Your task to perform on an android device: change notification settings in the gmail app Image 0: 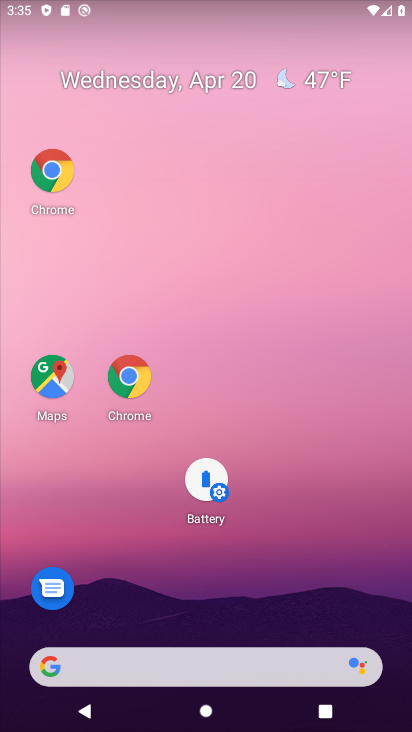
Step 0: drag from (254, 270) to (251, 31)
Your task to perform on an android device: change notification settings in the gmail app Image 1: 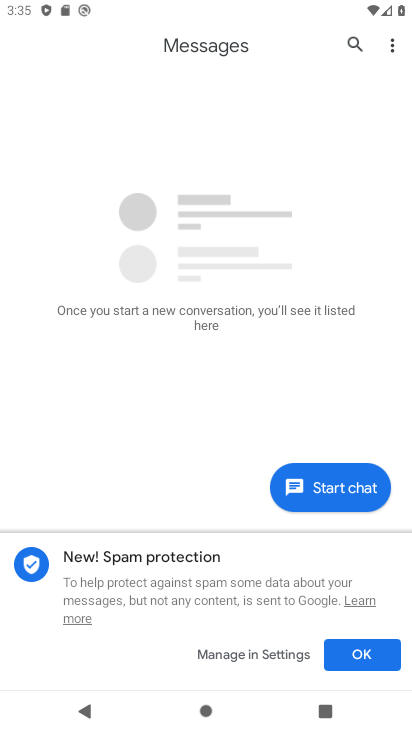
Step 1: press home button
Your task to perform on an android device: change notification settings in the gmail app Image 2: 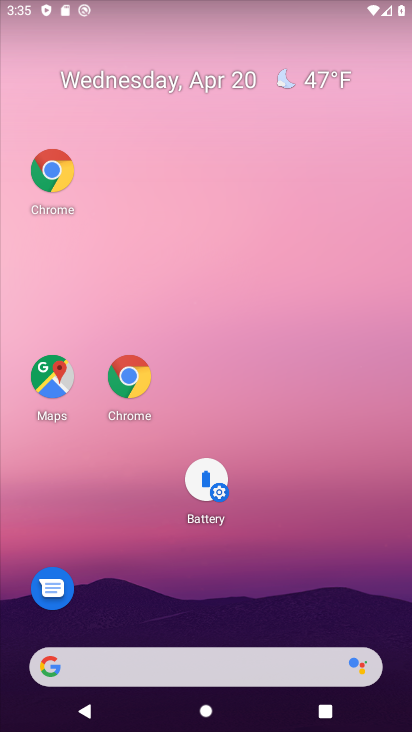
Step 2: drag from (215, 700) to (247, 79)
Your task to perform on an android device: change notification settings in the gmail app Image 3: 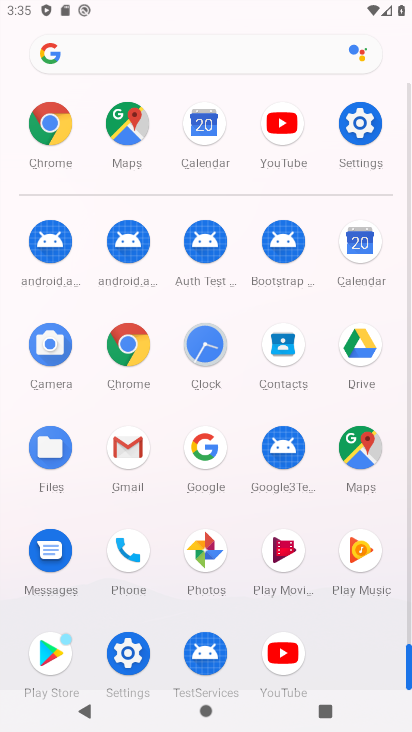
Step 3: click (135, 461)
Your task to perform on an android device: change notification settings in the gmail app Image 4: 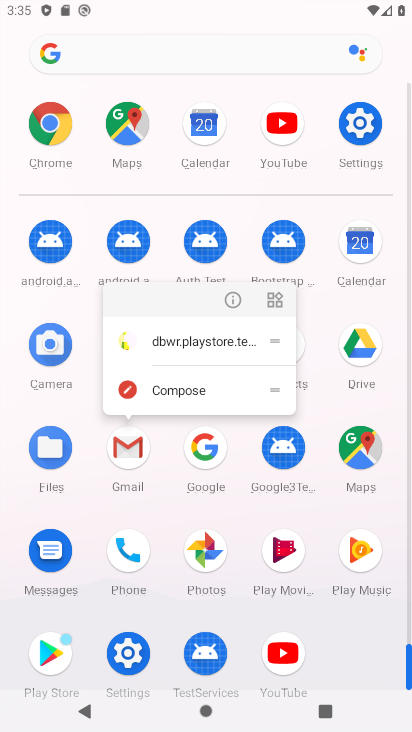
Step 4: click (135, 461)
Your task to perform on an android device: change notification settings in the gmail app Image 5: 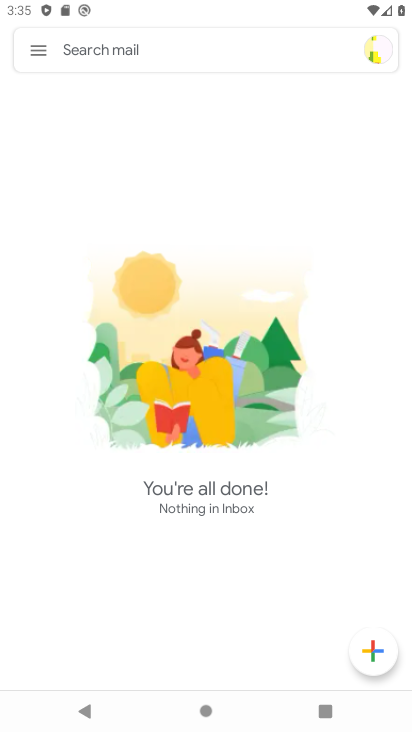
Step 5: click (34, 50)
Your task to perform on an android device: change notification settings in the gmail app Image 6: 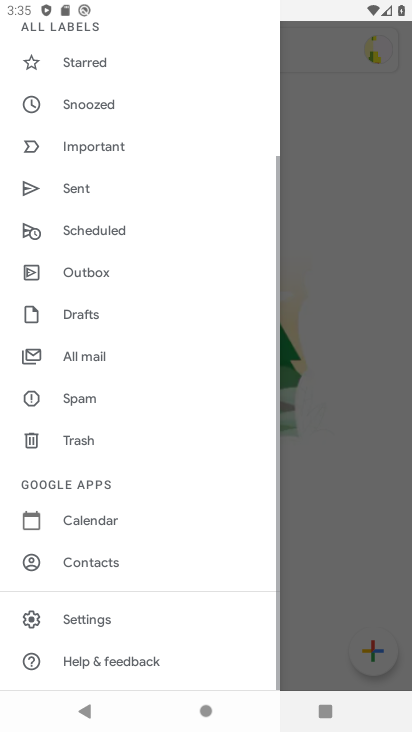
Step 6: drag from (146, 588) to (159, 193)
Your task to perform on an android device: change notification settings in the gmail app Image 7: 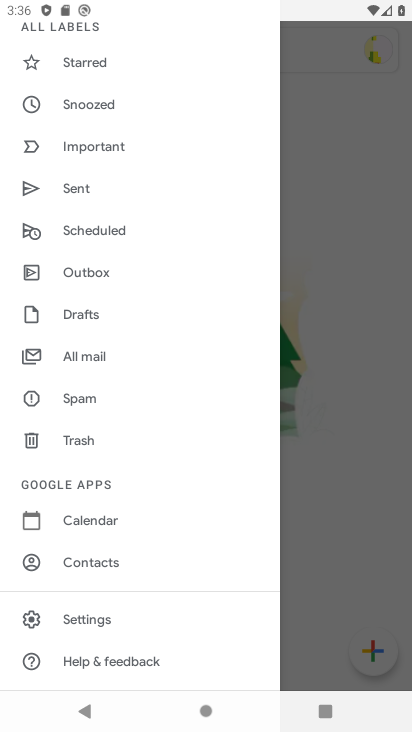
Step 7: click (109, 615)
Your task to perform on an android device: change notification settings in the gmail app Image 8: 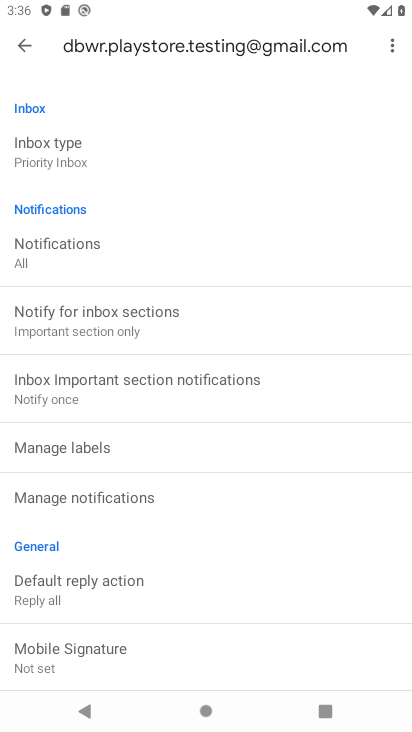
Step 8: click (134, 485)
Your task to perform on an android device: change notification settings in the gmail app Image 9: 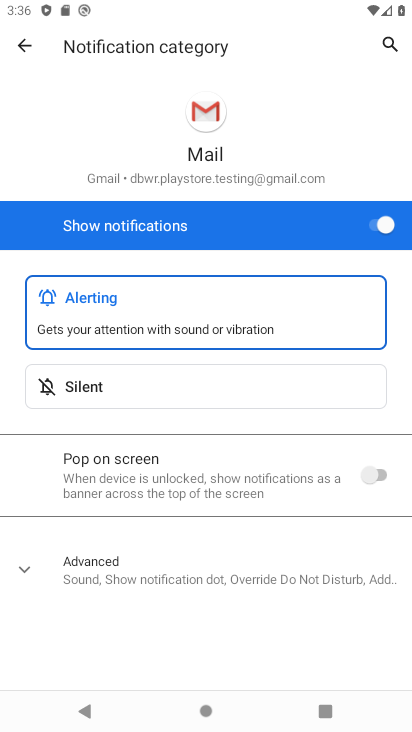
Step 9: click (378, 231)
Your task to perform on an android device: change notification settings in the gmail app Image 10: 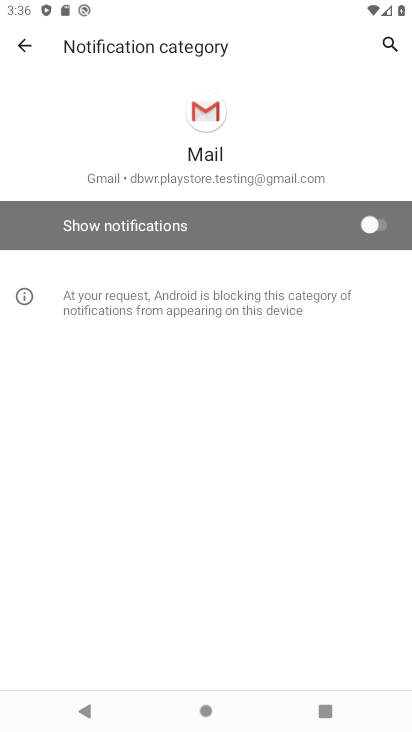
Step 10: task complete